Your task to perform on an android device: Go to Yahoo.com Image 0: 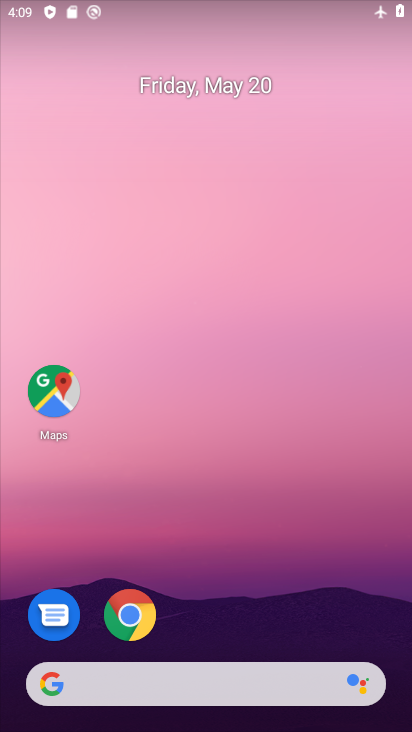
Step 0: drag from (226, 649) to (328, 158)
Your task to perform on an android device: Go to Yahoo.com Image 1: 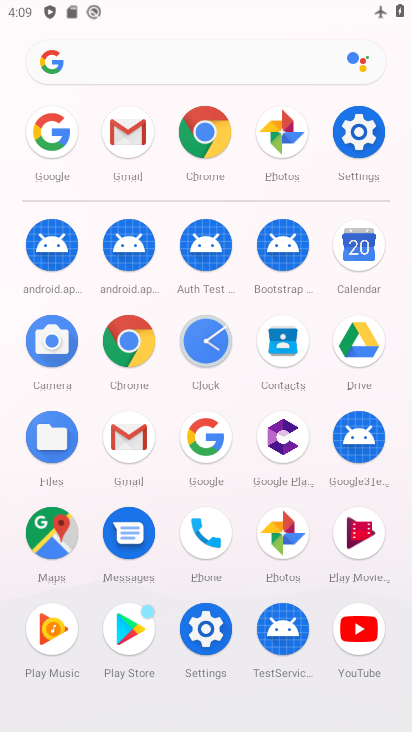
Step 1: click (202, 133)
Your task to perform on an android device: Go to Yahoo.com Image 2: 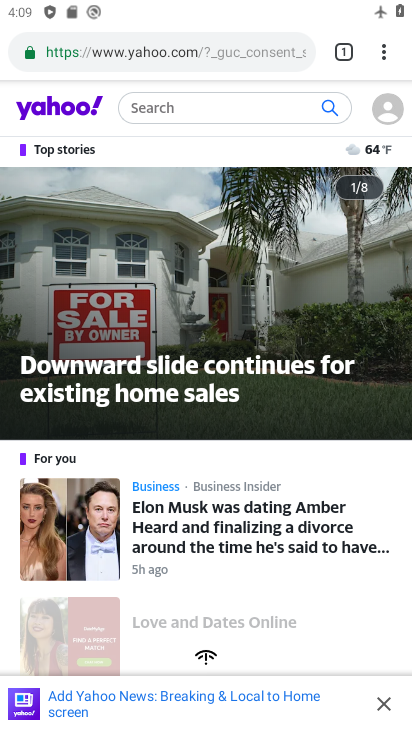
Step 2: task complete